Your task to perform on an android device: Open Yahoo.com Image 0: 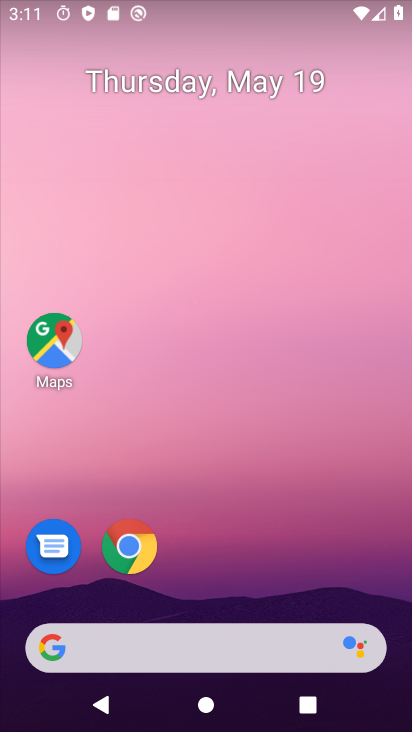
Step 0: press home button
Your task to perform on an android device: Open Yahoo.com Image 1: 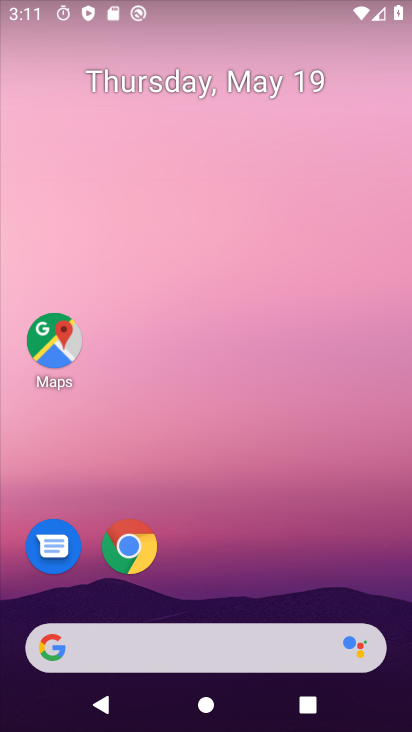
Step 1: click (131, 538)
Your task to perform on an android device: Open Yahoo.com Image 2: 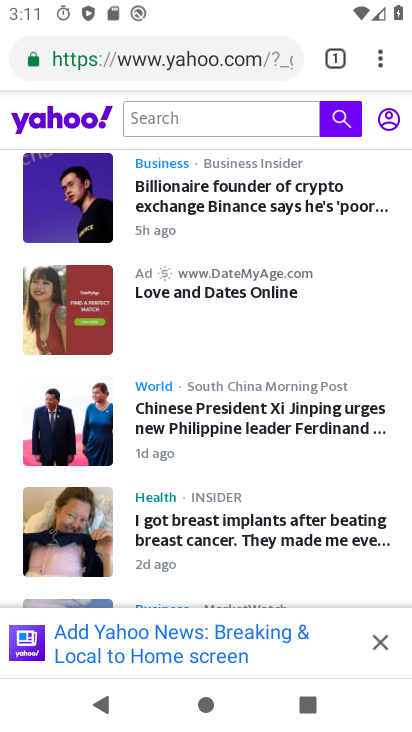
Step 2: click (373, 641)
Your task to perform on an android device: Open Yahoo.com Image 3: 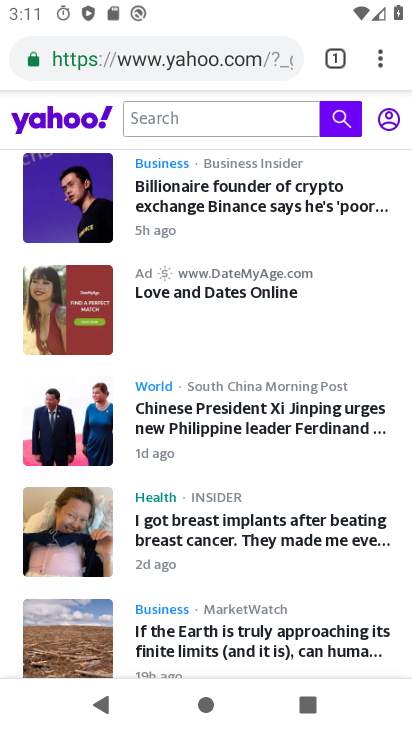
Step 3: task complete